Your task to perform on an android device: toggle javascript in the chrome app Image 0: 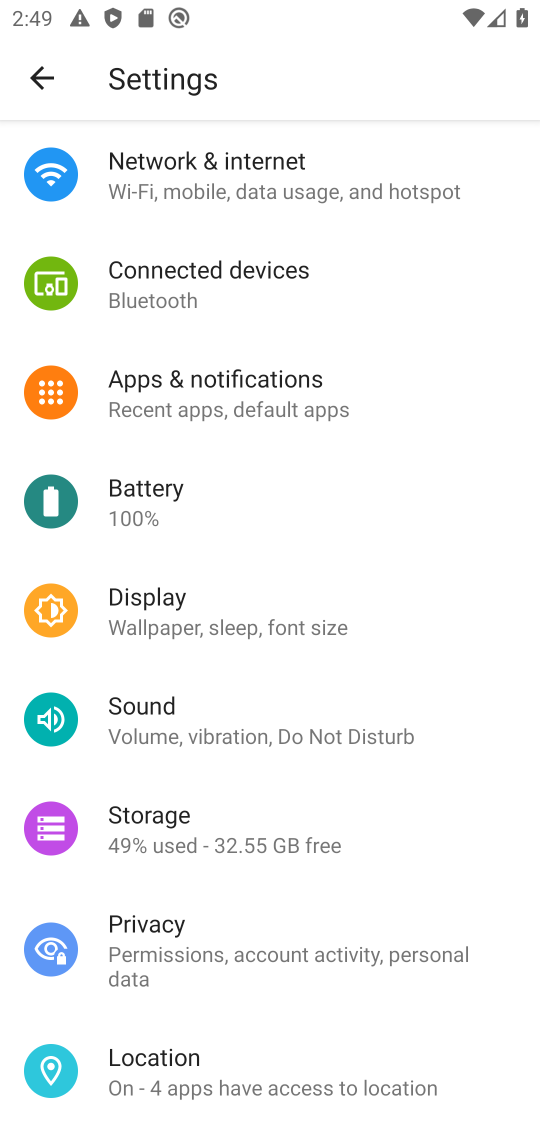
Step 0: press home button
Your task to perform on an android device: toggle javascript in the chrome app Image 1: 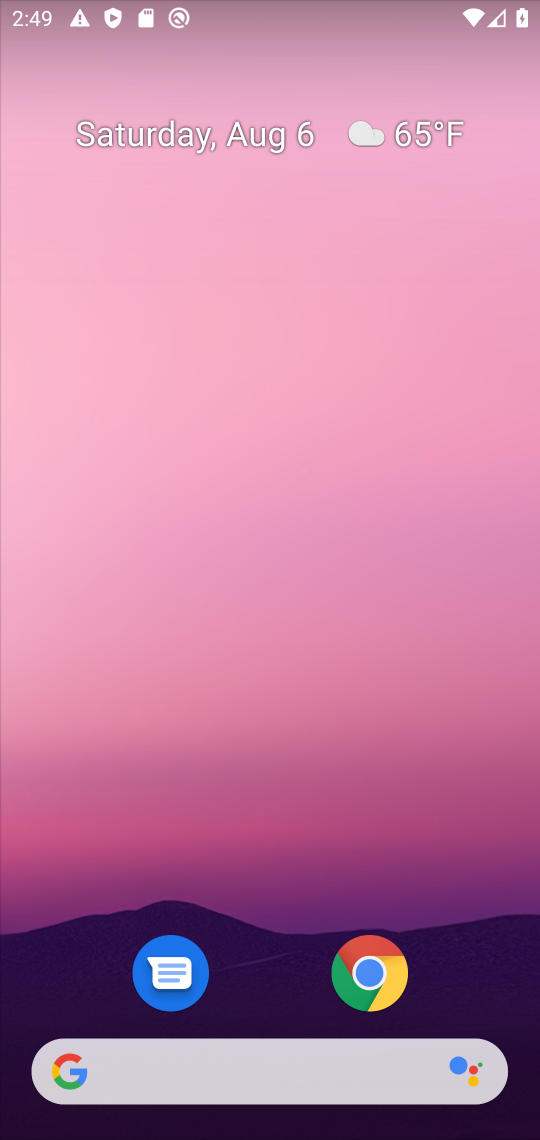
Step 1: click (378, 972)
Your task to perform on an android device: toggle javascript in the chrome app Image 2: 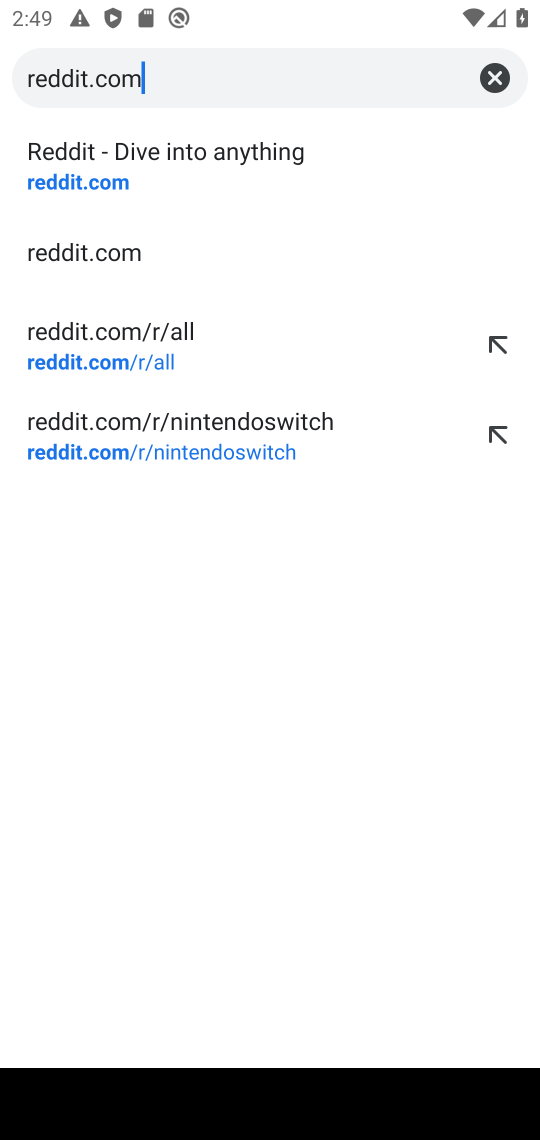
Step 2: click (496, 65)
Your task to perform on an android device: toggle javascript in the chrome app Image 3: 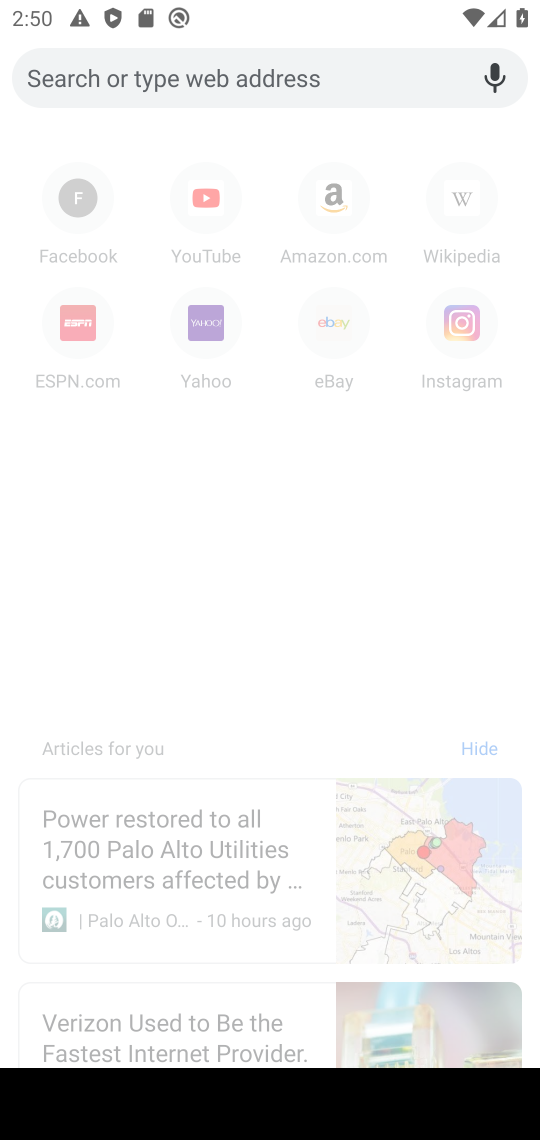
Step 3: click (491, 204)
Your task to perform on an android device: toggle javascript in the chrome app Image 4: 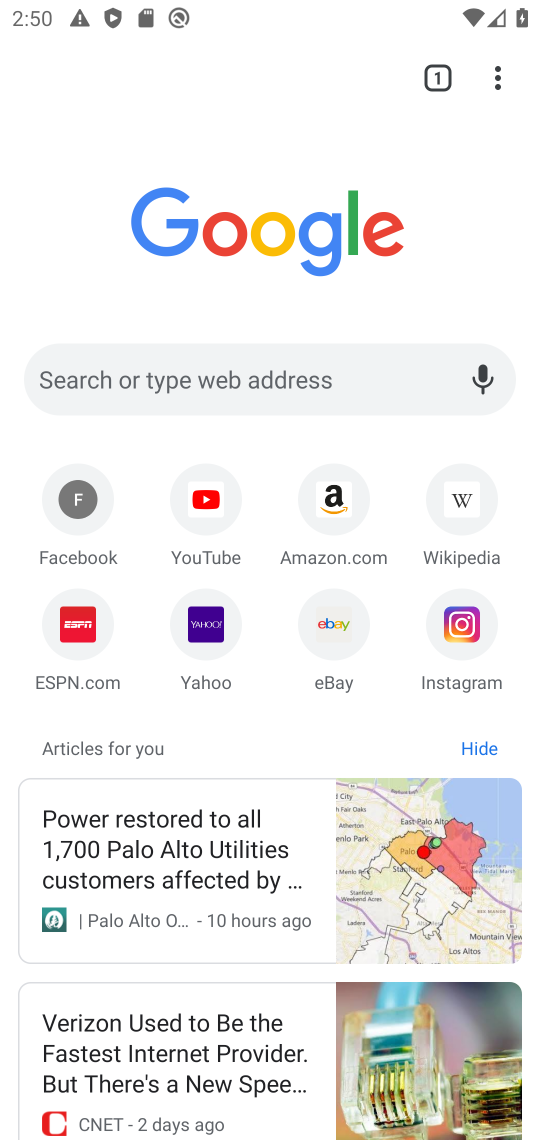
Step 4: click (502, 73)
Your task to perform on an android device: toggle javascript in the chrome app Image 5: 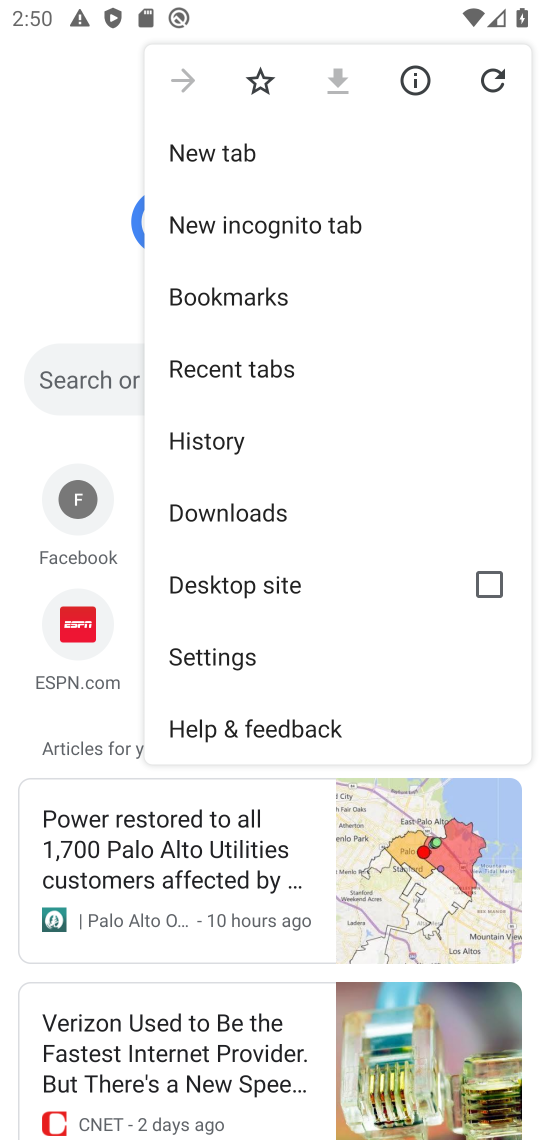
Step 5: click (238, 670)
Your task to perform on an android device: toggle javascript in the chrome app Image 6: 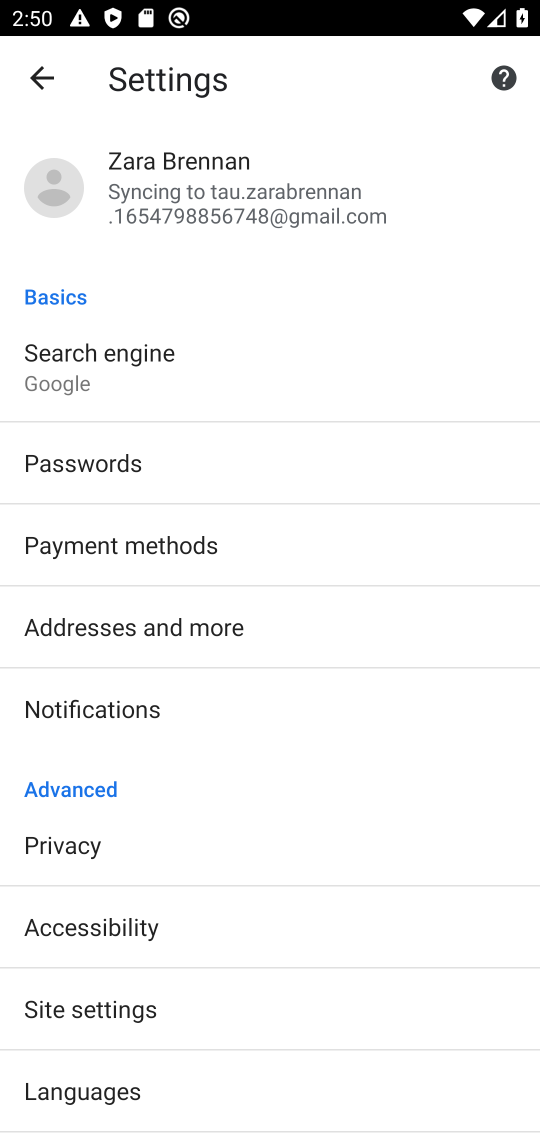
Step 6: click (126, 1023)
Your task to perform on an android device: toggle javascript in the chrome app Image 7: 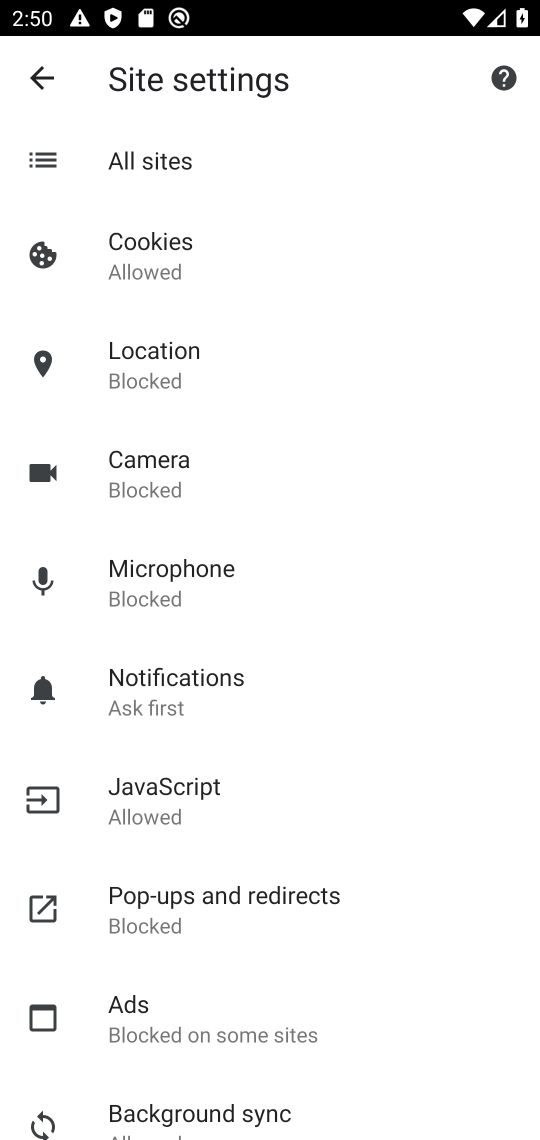
Step 7: click (215, 790)
Your task to perform on an android device: toggle javascript in the chrome app Image 8: 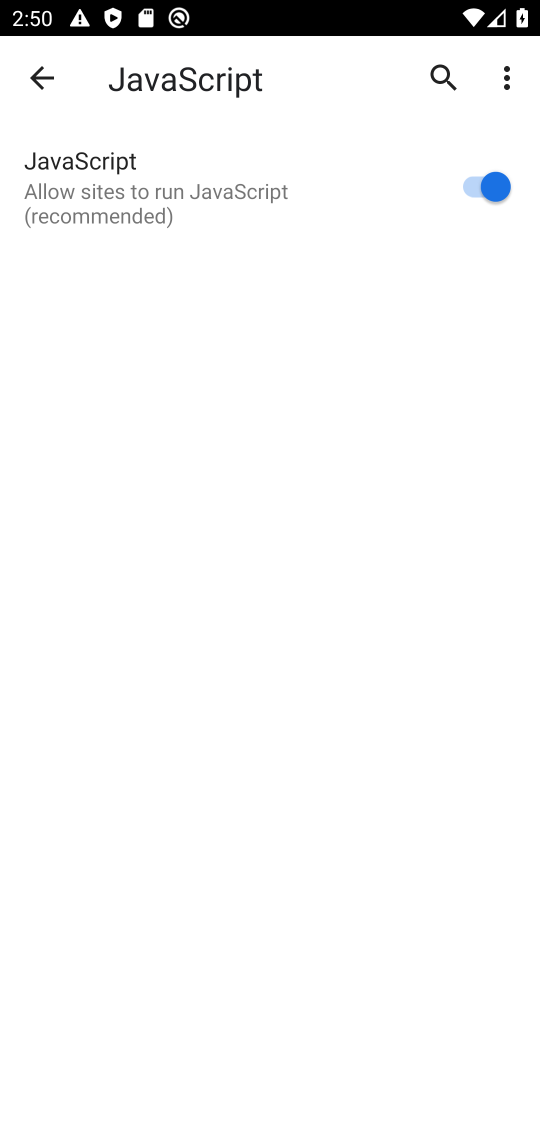
Step 8: click (498, 203)
Your task to perform on an android device: toggle javascript in the chrome app Image 9: 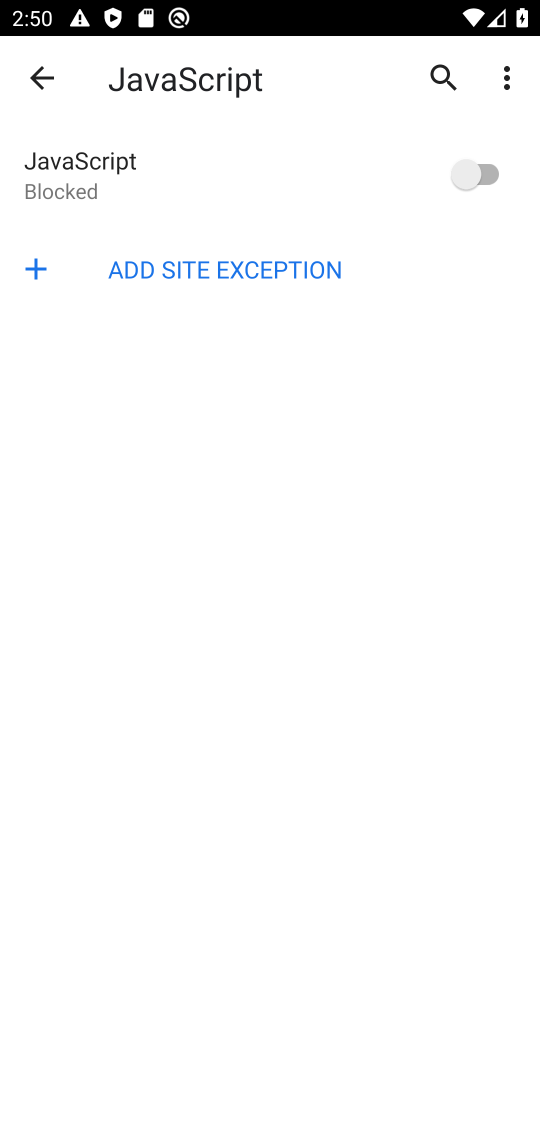
Step 9: task complete